Your task to perform on an android device: toggle notification dots Image 0: 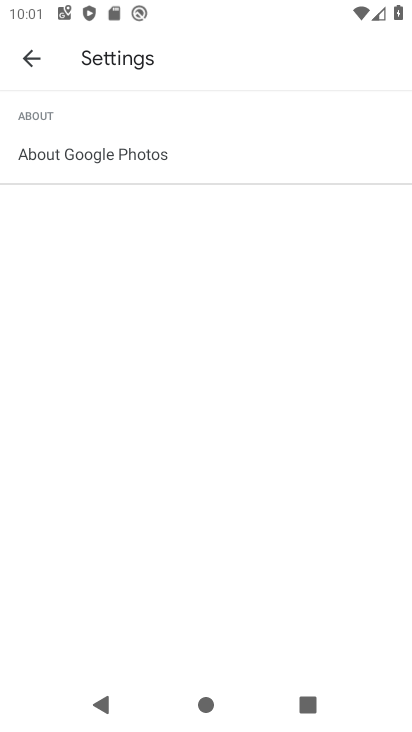
Step 0: press home button
Your task to perform on an android device: toggle notification dots Image 1: 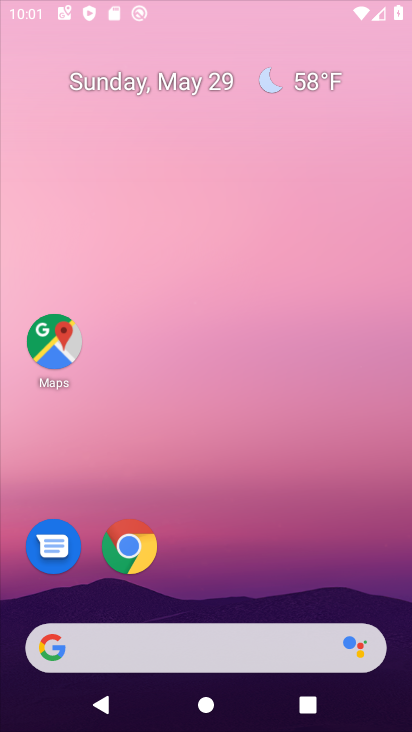
Step 1: drag from (366, 592) to (360, 154)
Your task to perform on an android device: toggle notification dots Image 2: 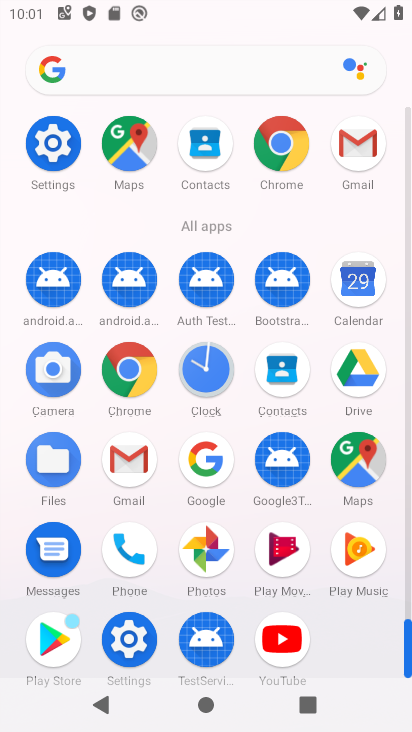
Step 2: click (54, 152)
Your task to perform on an android device: toggle notification dots Image 3: 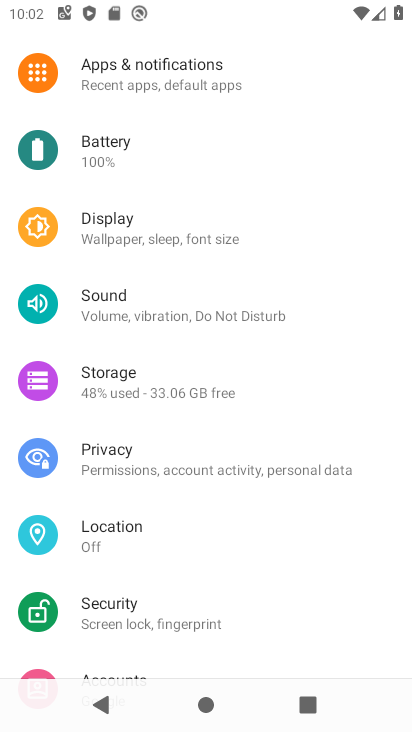
Step 3: click (186, 33)
Your task to perform on an android device: toggle notification dots Image 4: 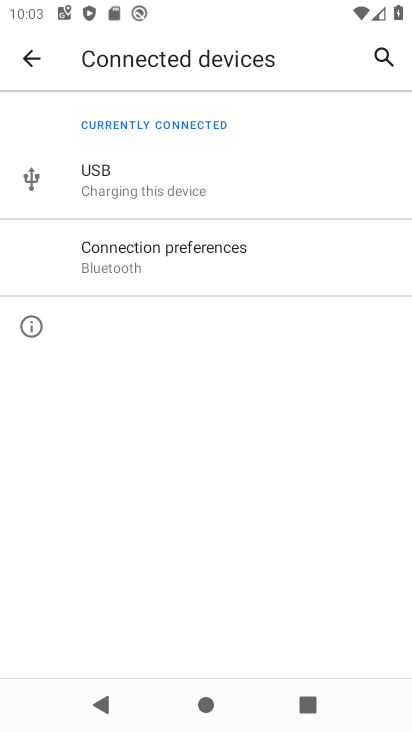
Step 4: press home button
Your task to perform on an android device: toggle notification dots Image 5: 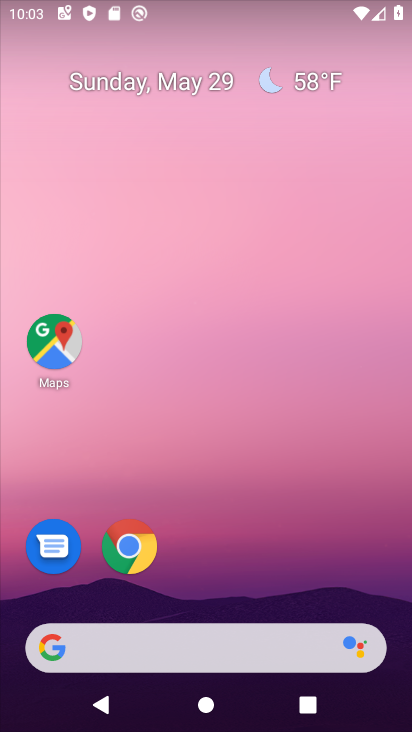
Step 5: drag from (318, 505) to (319, 246)
Your task to perform on an android device: toggle notification dots Image 6: 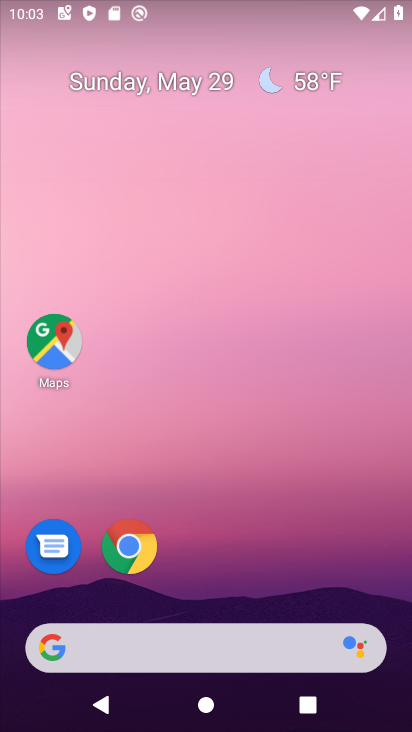
Step 6: click (322, 252)
Your task to perform on an android device: toggle notification dots Image 7: 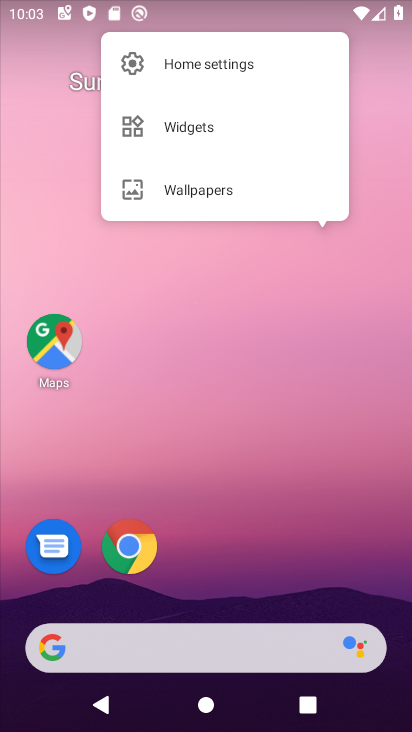
Step 7: drag from (275, 513) to (320, 134)
Your task to perform on an android device: toggle notification dots Image 8: 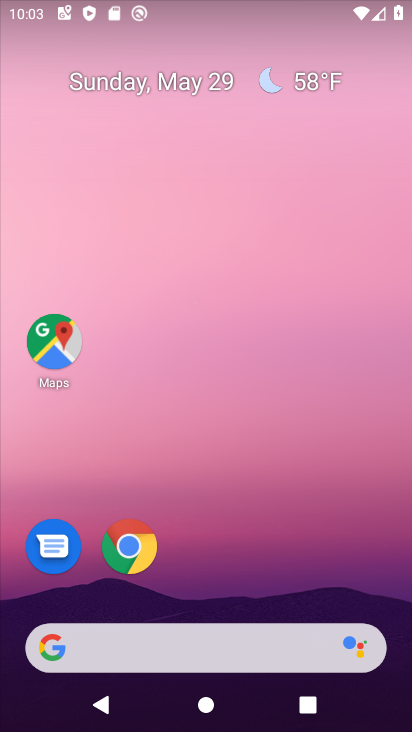
Step 8: drag from (314, 520) to (316, 180)
Your task to perform on an android device: toggle notification dots Image 9: 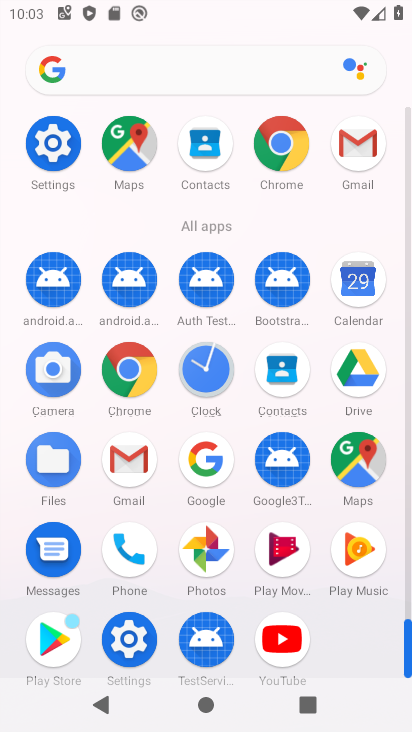
Step 9: click (259, 368)
Your task to perform on an android device: toggle notification dots Image 10: 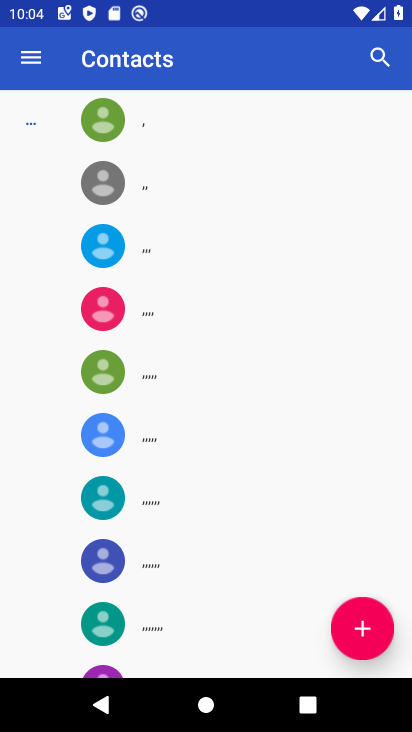
Step 10: drag from (262, 358) to (306, 290)
Your task to perform on an android device: toggle notification dots Image 11: 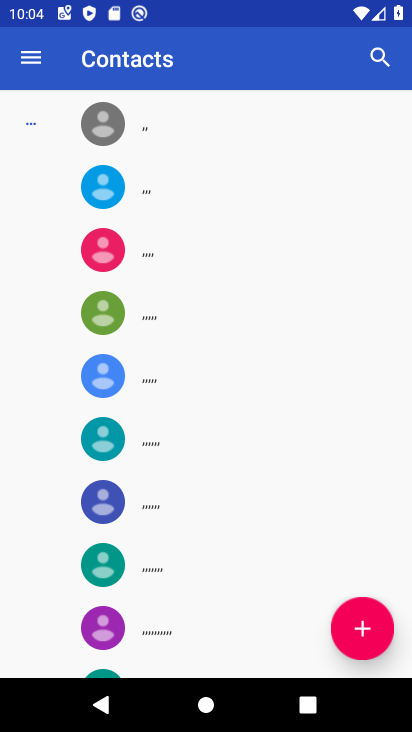
Step 11: drag from (278, 518) to (327, 358)
Your task to perform on an android device: toggle notification dots Image 12: 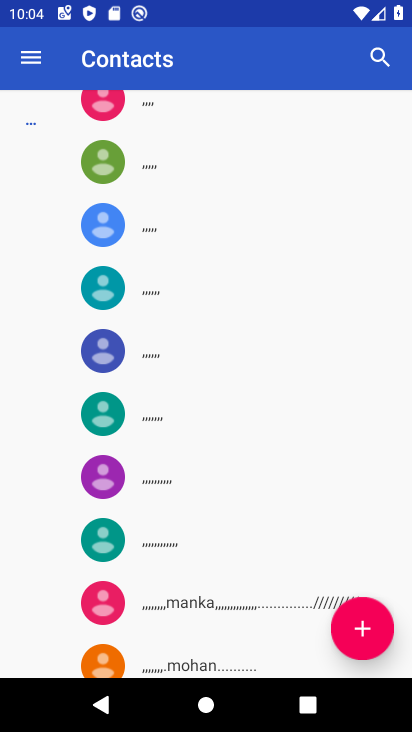
Step 12: press home button
Your task to perform on an android device: toggle notification dots Image 13: 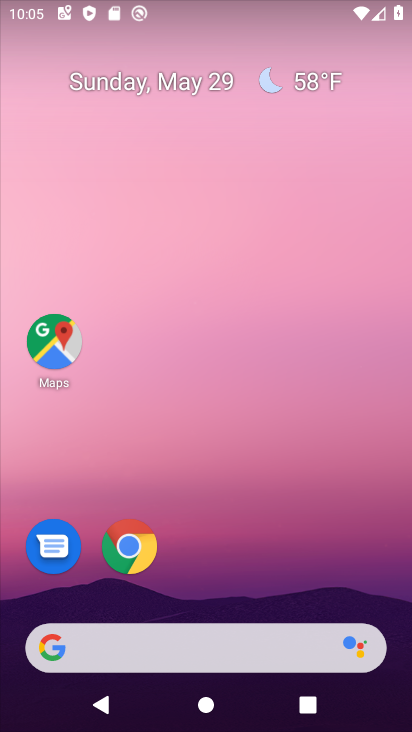
Step 13: drag from (367, 537) to (361, 104)
Your task to perform on an android device: toggle notification dots Image 14: 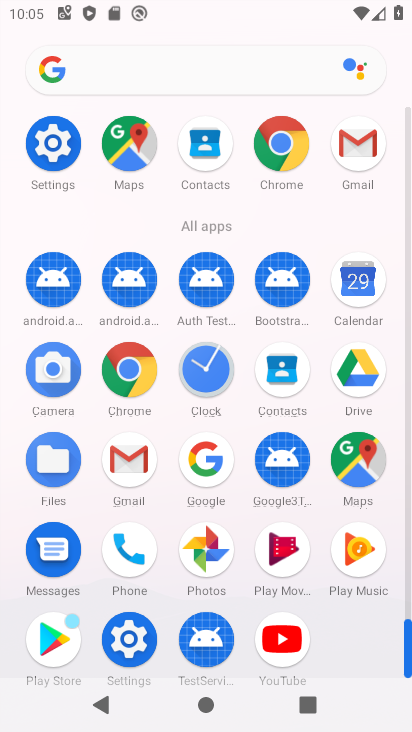
Step 14: click (61, 148)
Your task to perform on an android device: toggle notification dots Image 15: 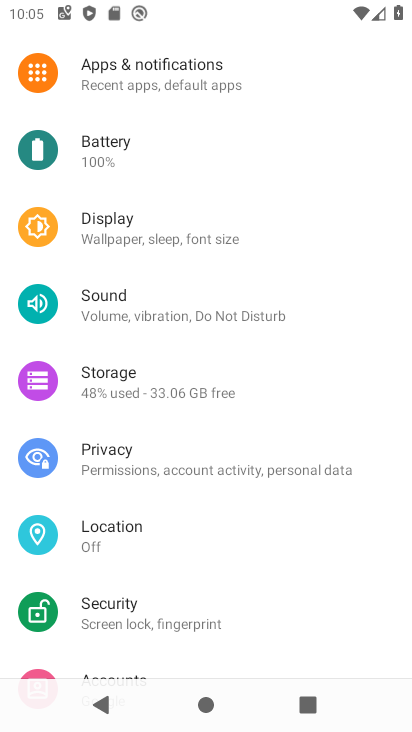
Step 15: click (154, 87)
Your task to perform on an android device: toggle notification dots Image 16: 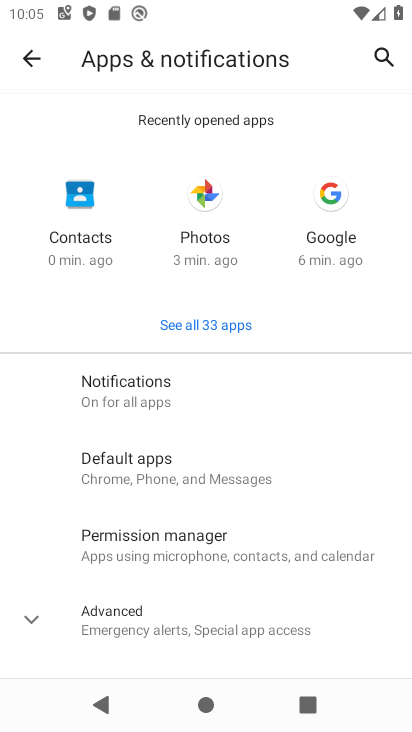
Step 16: click (151, 488)
Your task to perform on an android device: toggle notification dots Image 17: 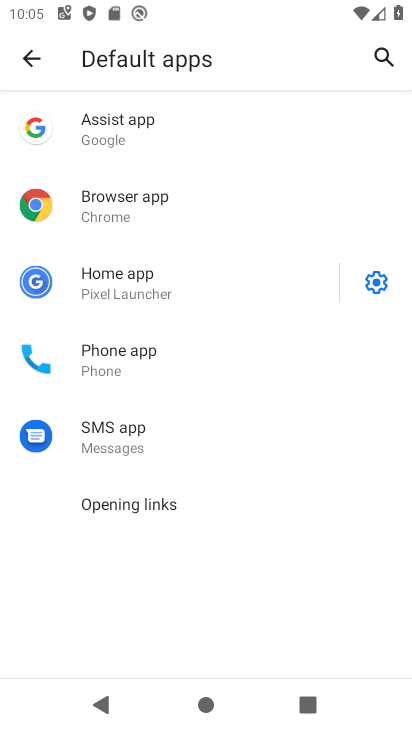
Step 17: click (52, 81)
Your task to perform on an android device: toggle notification dots Image 18: 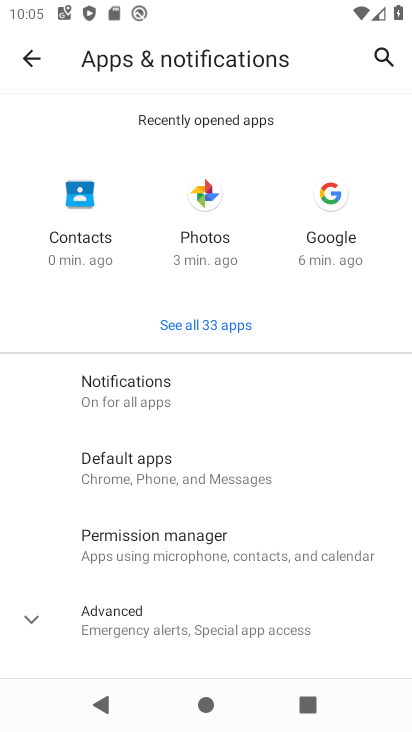
Step 18: click (153, 421)
Your task to perform on an android device: toggle notification dots Image 19: 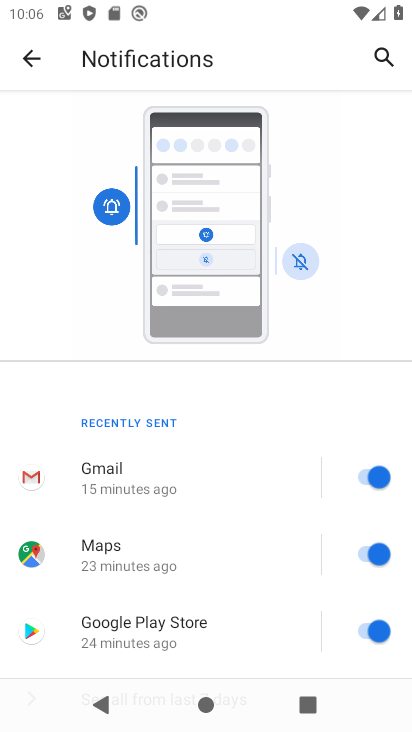
Step 19: click (154, 420)
Your task to perform on an android device: toggle notification dots Image 20: 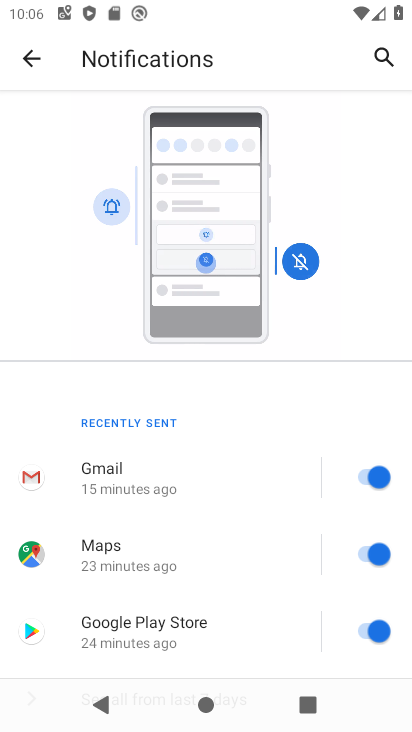
Step 20: drag from (214, 439) to (239, 161)
Your task to perform on an android device: toggle notification dots Image 21: 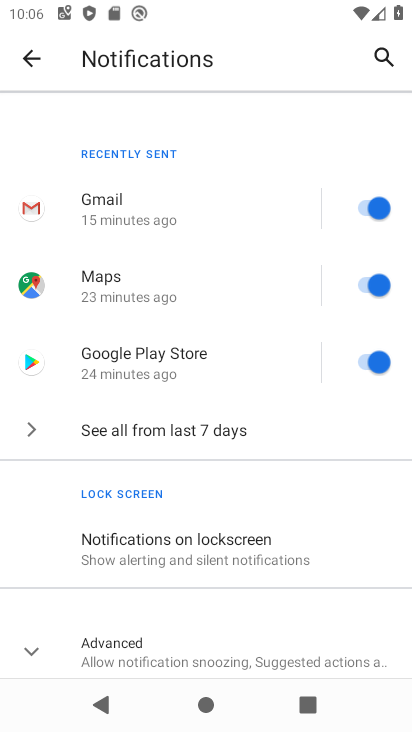
Step 21: drag from (229, 496) to (221, 305)
Your task to perform on an android device: toggle notification dots Image 22: 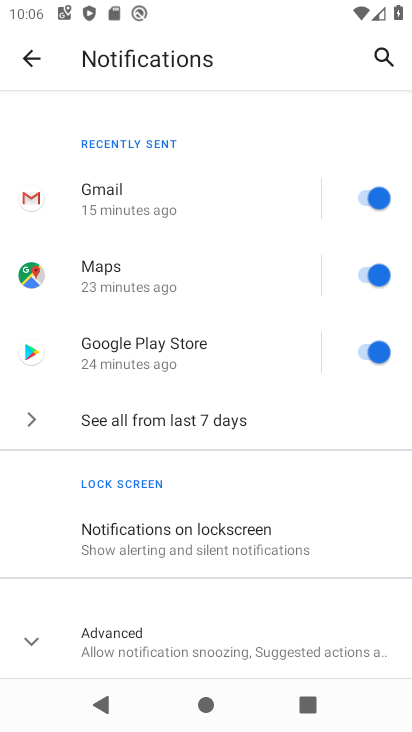
Step 22: click (120, 610)
Your task to perform on an android device: toggle notification dots Image 23: 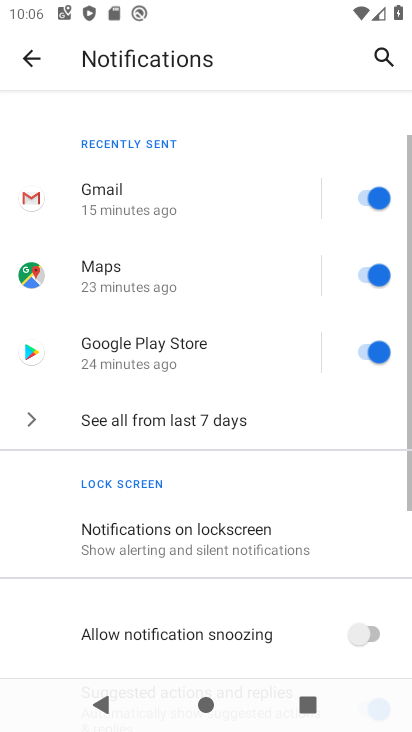
Step 23: task complete